Your task to perform on an android device: Open display settings Image 0: 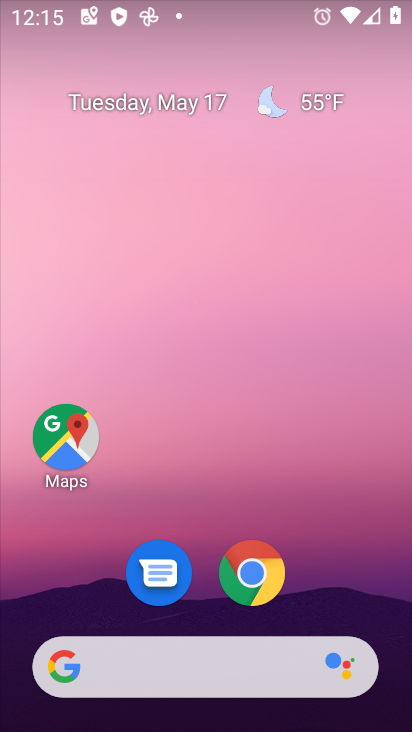
Step 0: drag from (362, 595) to (276, 258)
Your task to perform on an android device: Open display settings Image 1: 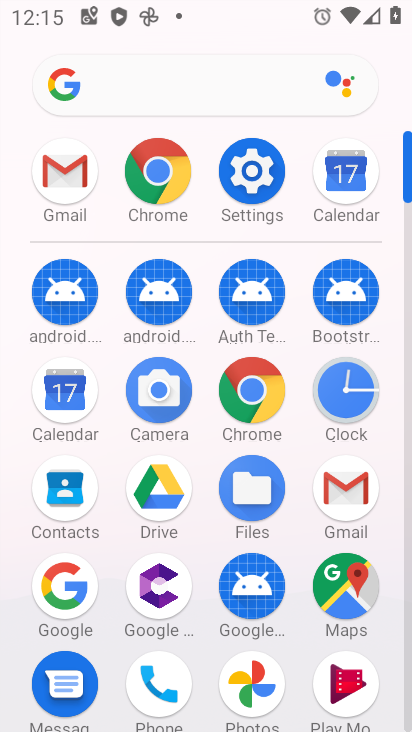
Step 1: click (258, 176)
Your task to perform on an android device: Open display settings Image 2: 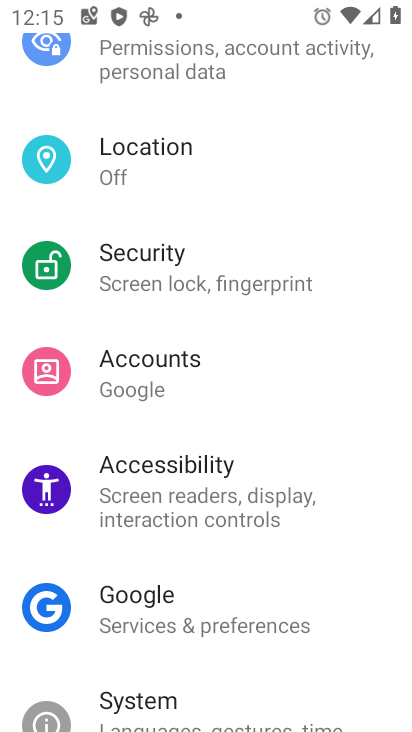
Step 2: drag from (252, 190) to (263, 644)
Your task to perform on an android device: Open display settings Image 3: 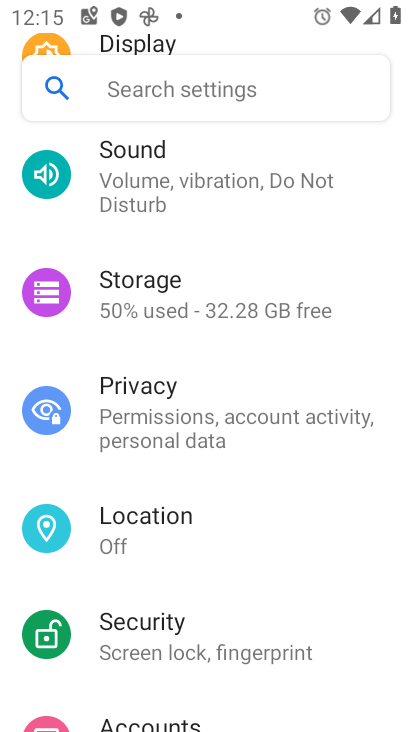
Step 3: drag from (277, 190) to (269, 475)
Your task to perform on an android device: Open display settings Image 4: 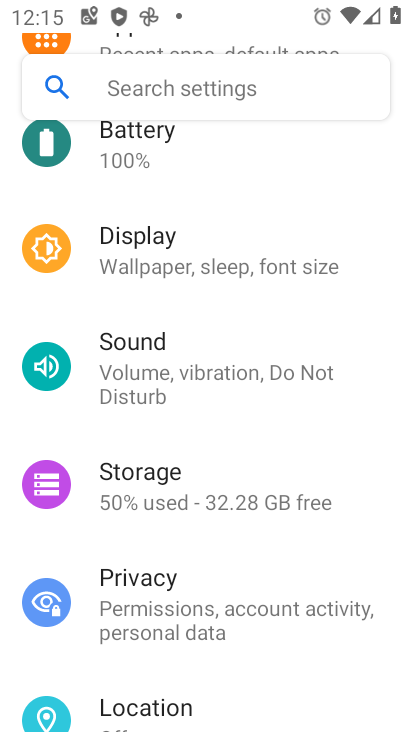
Step 4: click (110, 268)
Your task to perform on an android device: Open display settings Image 5: 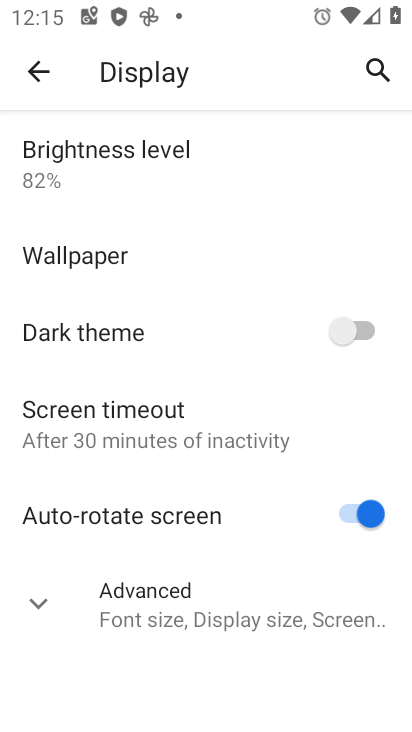
Step 5: task complete